Your task to perform on an android device: Open battery settings Image 0: 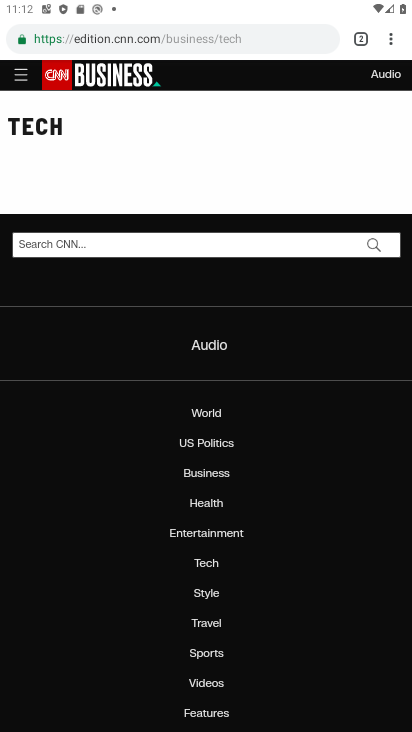
Step 0: press home button
Your task to perform on an android device: Open battery settings Image 1: 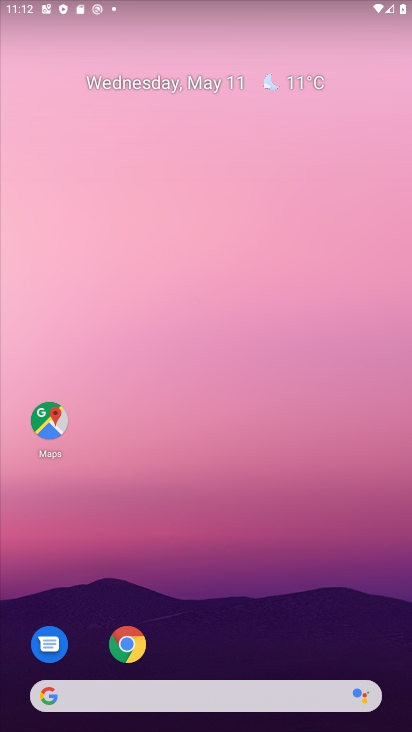
Step 1: drag from (196, 657) to (219, 33)
Your task to perform on an android device: Open battery settings Image 2: 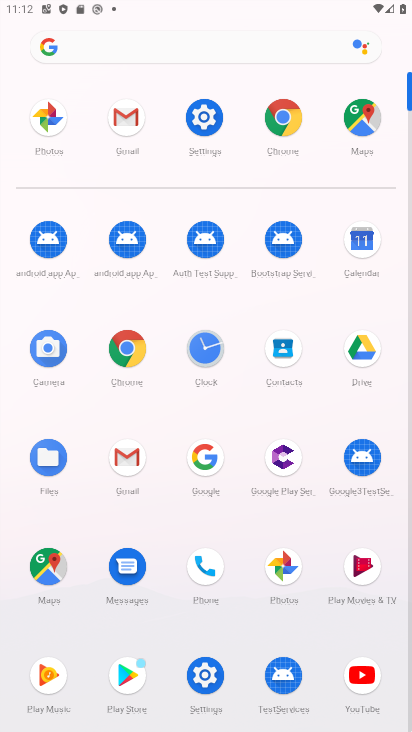
Step 2: click (202, 117)
Your task to perform on an android device: Open battery settings Image 3: 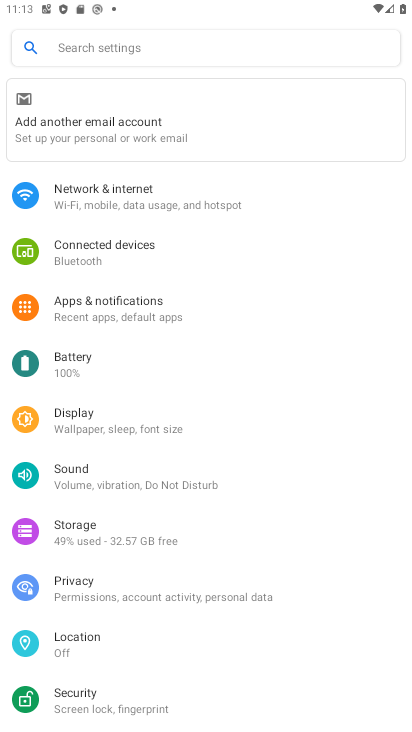
Step 3: click (110, 361)
Your task to perform on an android device: Open battery settings Image 4: 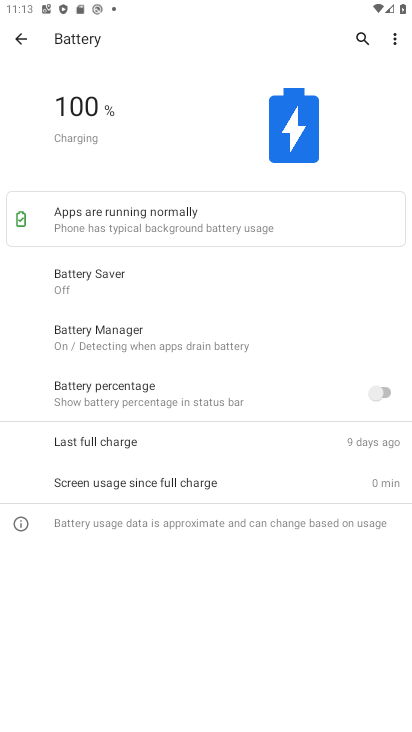
Step 4: task complete